Your task to perform on an android device: turn off javascript in the chrome app Image 0: 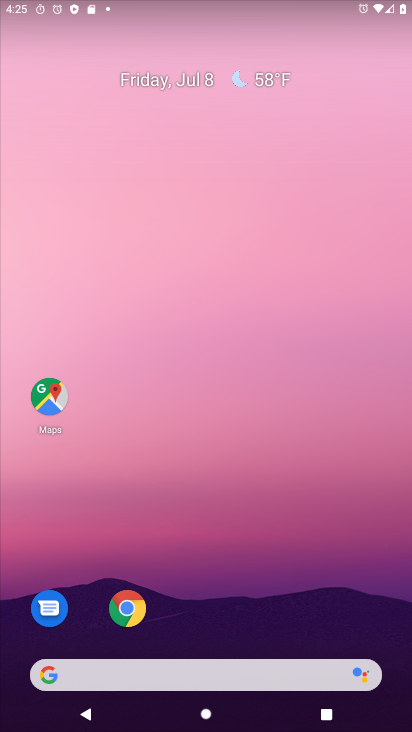
Step 0: click (122, 616)
Your task to perform on an android device: turn off javascript in the chrome app Image 1: 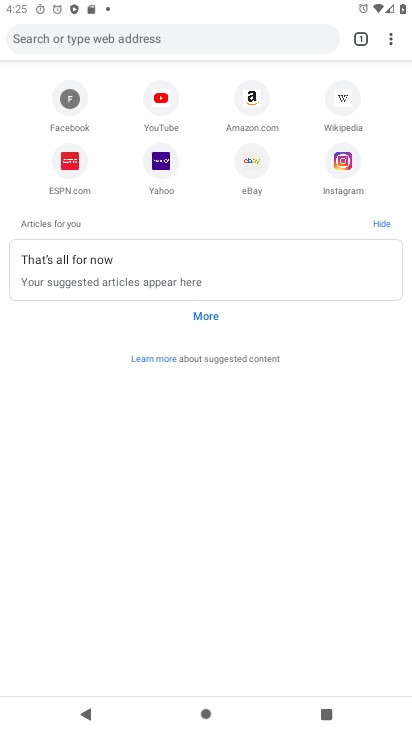
Step 1: click (389, 31)
Your task to perform on an android device: turn off javascript in the chrome app Image 2: 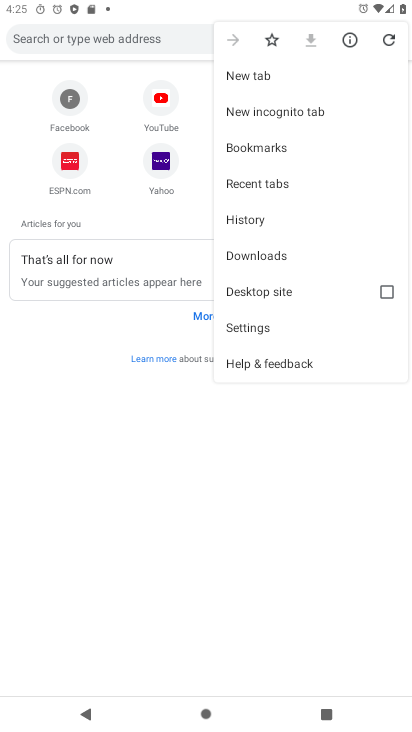
Step 2: click (242, 320)
Your task to perform on an android device: turn off javascript in the chrome app Image 3: 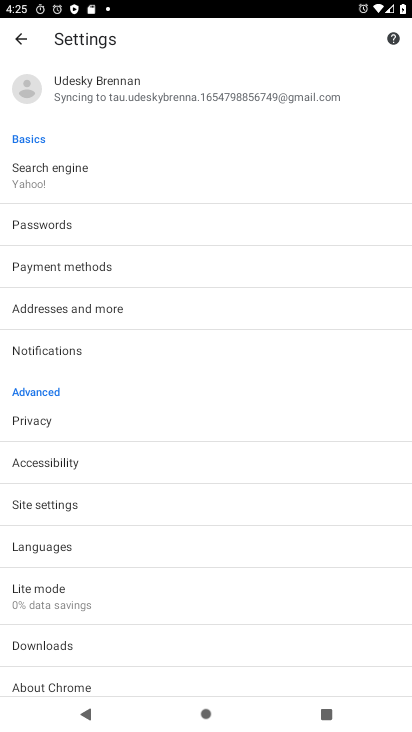
Step 3: click (60, 509)
Your task to perform on an android device: turn off javascript in the chrome app Image 4: 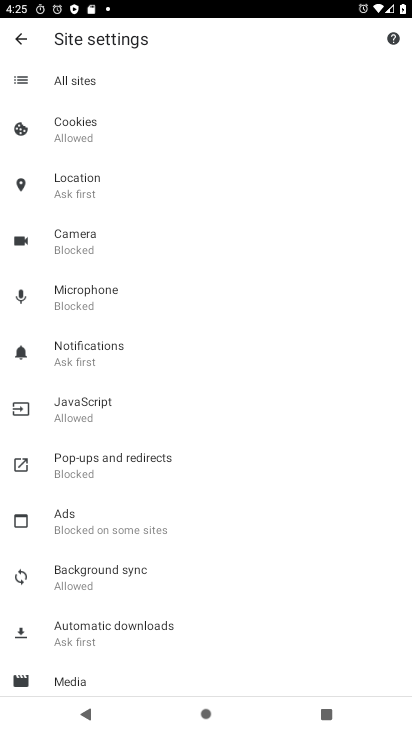
Step 4: click (89, 416)
Your task to perform on an android device: turn off javascript in the chrome app Image 5: 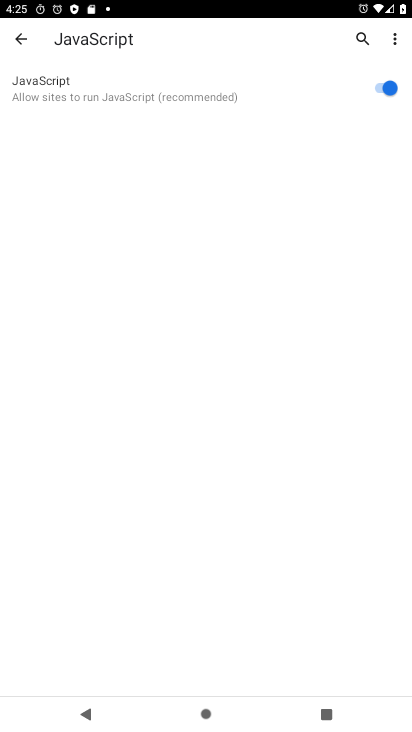
Step 5: click (368, 84)
Your task to perform on an android device: turn off javascript in the chrome app Image 6: 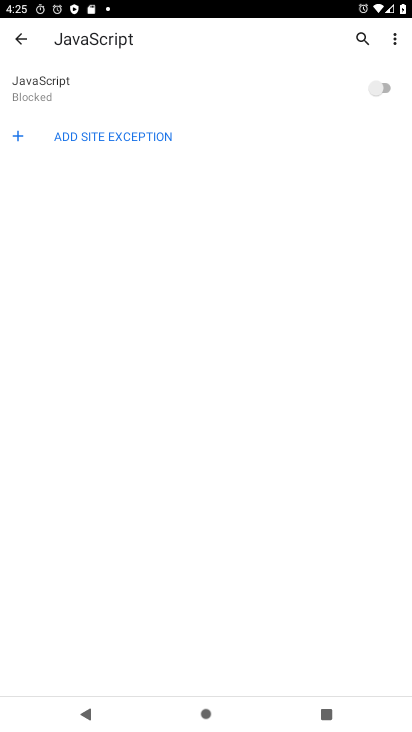
Step 6: task complete